Your task to perform on an android device: turn off airplane mode Image 0: 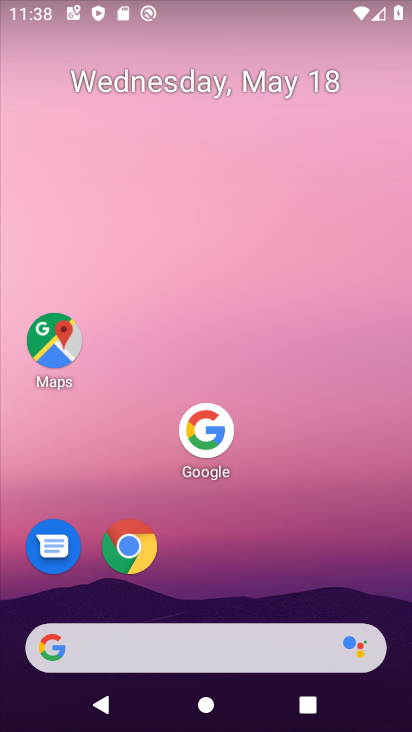
Step 0: drag from (224, 573) to (327, 0)
Your task to perform on an android device: turn off airplane mode Image 1: 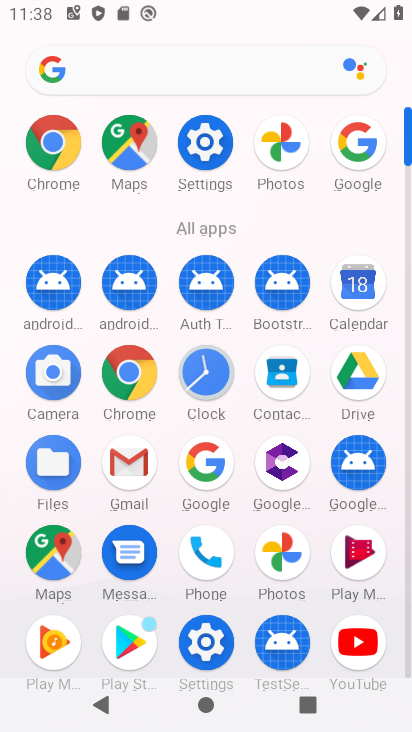
Step 1: click (206, 133)
Your task to perform on an android device: turn off airplane mode Image 2: 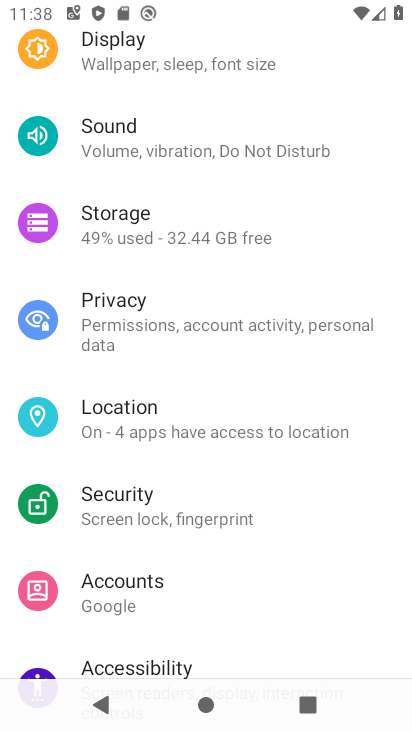
Step 2: drag from (231, 126) to (338, 640)
Your task to perform on an android device: turn off airplane mode Image 3: 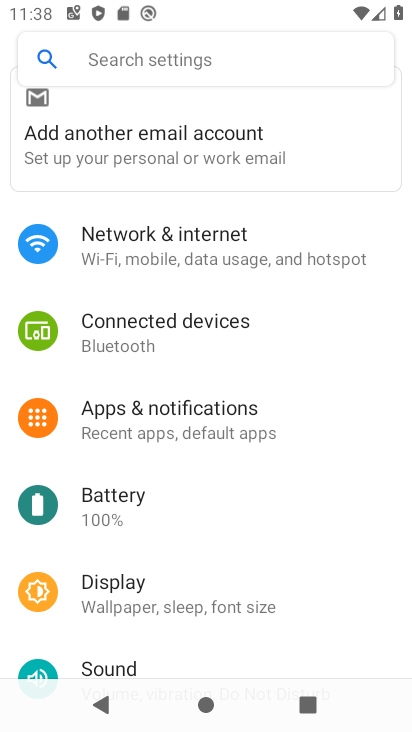
Step 3: click (242, 250)
Your task to perform on an android device: turn off airplane mode Image 4: 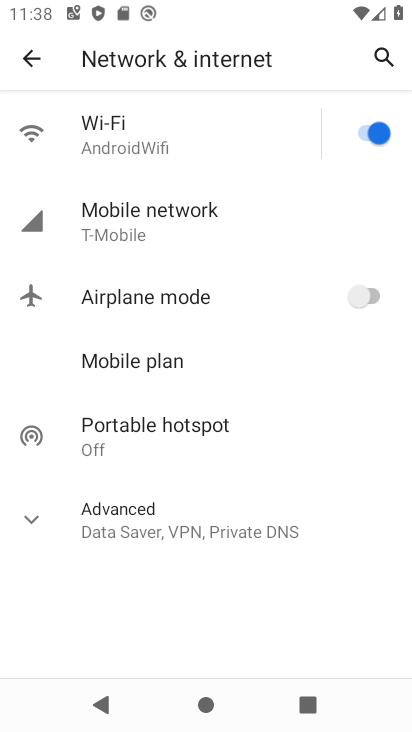
Step 4: task complete